Your task to perform on an android device: Open maps Image 0: 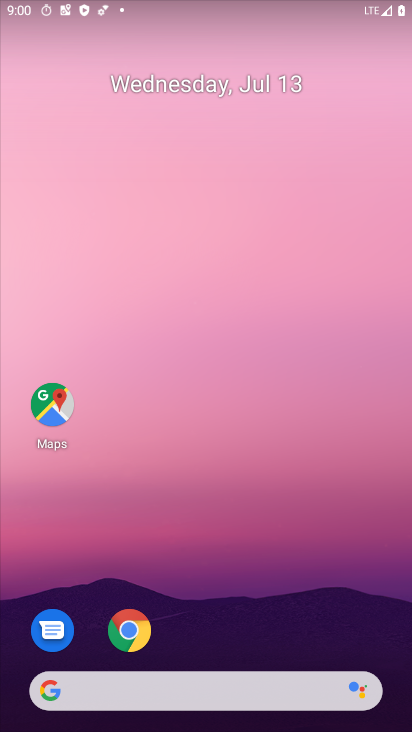
Step 0: drag from (266, 526) to (343, 208)
Your task to perform on an android device: Open maps Image 1: 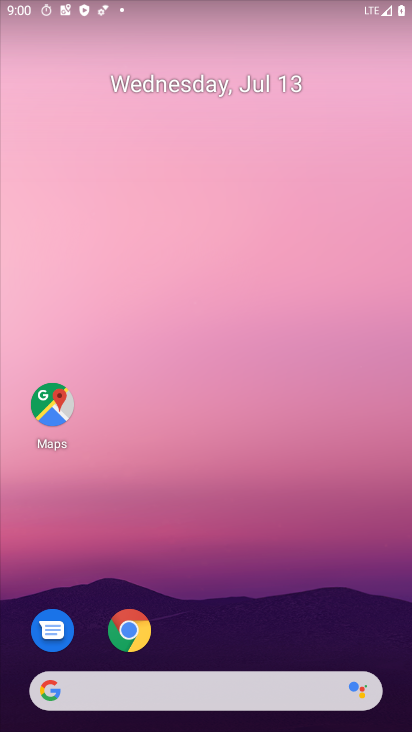
Step 1: drag from (316, 575) to (286, 107)
Your task to perform on an android device: Open maps Image 2: 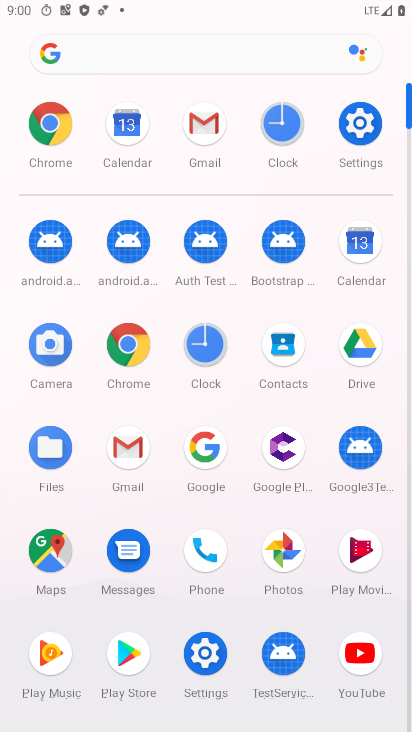
Step 2: click (48, 558)
Your task to perform on an android device: Open maps Image 3: 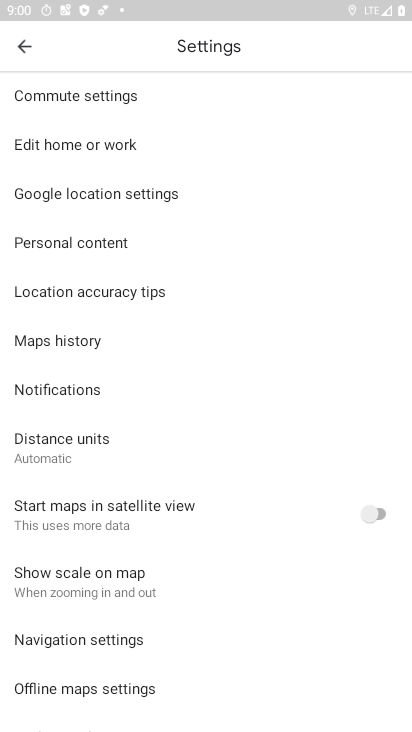
Step 3: task complete